Your task to perform on an android device: change the clock display to show seconds Image 0: 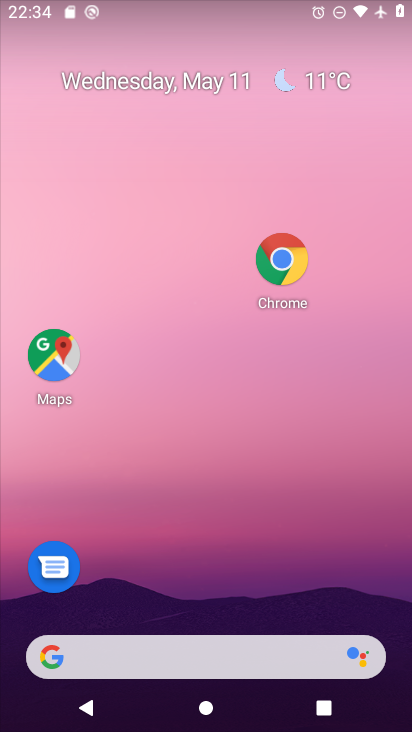
Step 0: drag from (148, 654) to (320, 110)
Your task to perform on an android device: change the clock display to show seconds Image 1: 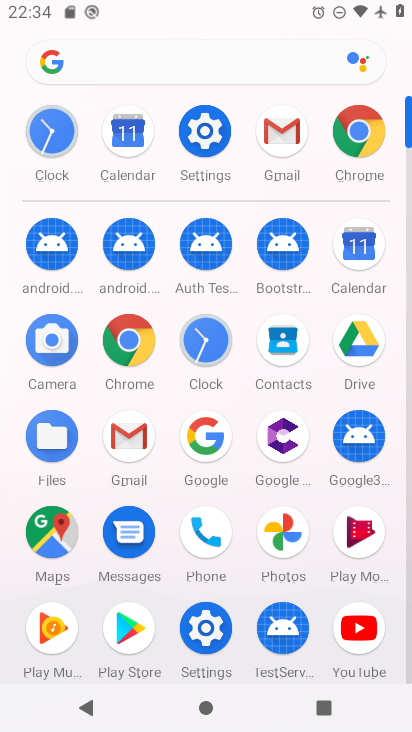
Step 1: click (220, 352)
Your task to perform on an android device: change the clock display to show seconds Image 2: 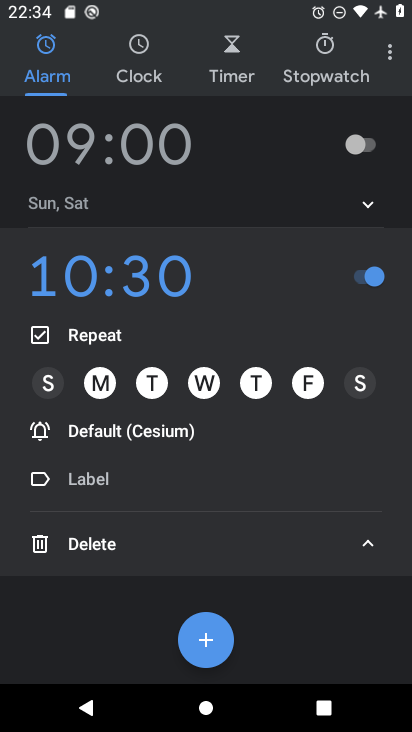
Step 2: click (391, 56)
Your task to perform on an android device: change the clock display to show seconds Image 3: 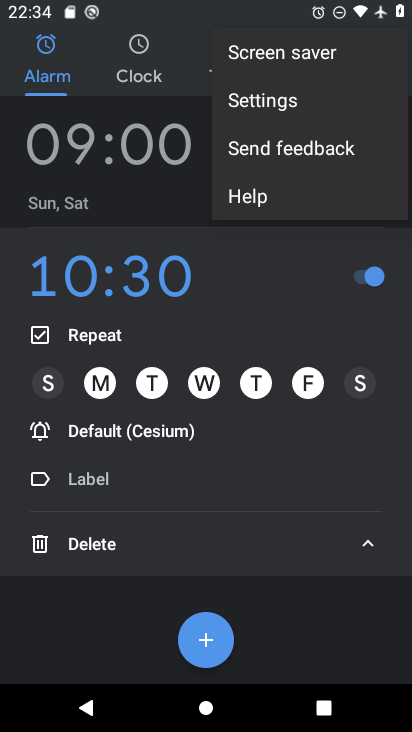
Step 3: click (299, 109)
Your task to perform on an android device: change the clock display to show seconds Image 4: 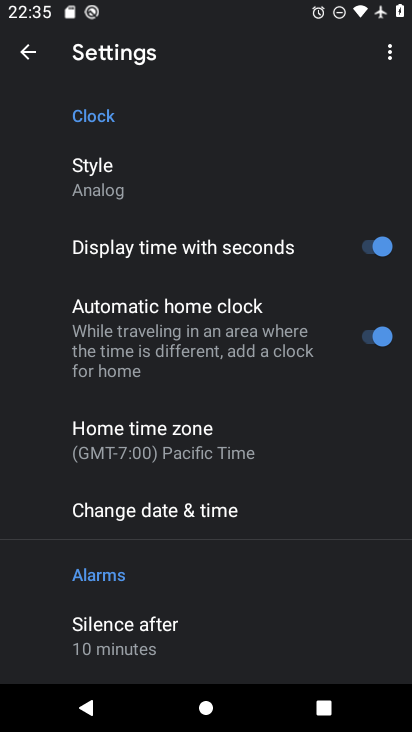
Step 4: task complete